Your task to perform on an android device: toggle location history Image 0: 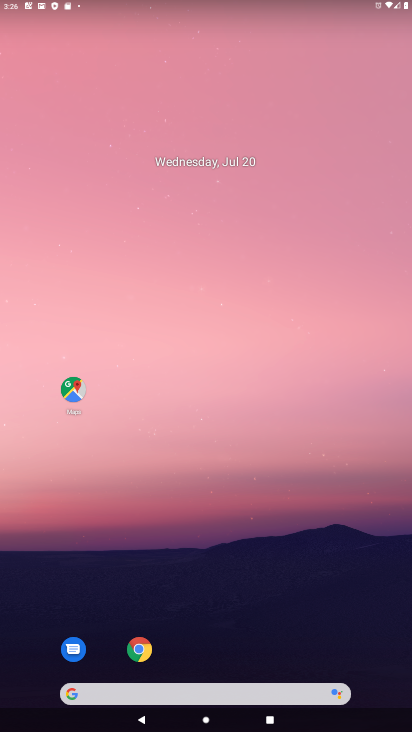
Step 0: drag from (212, 688) to (378, 87)
Your task to perform on an android device: toggle location history Image 1: 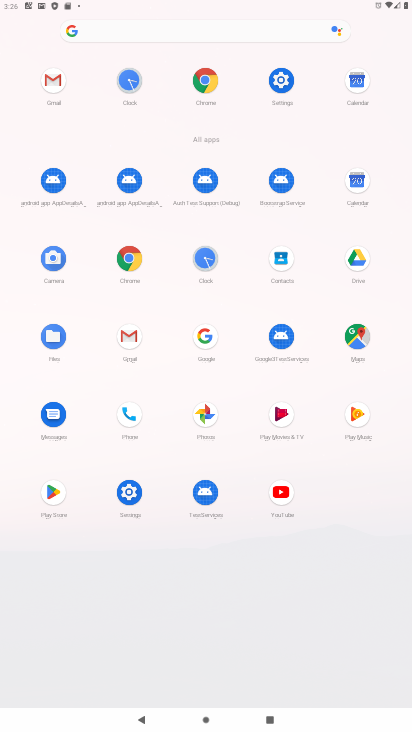
Step 1: click (129, 492)
Your task to perform on an android device: toggle location history Image 2: 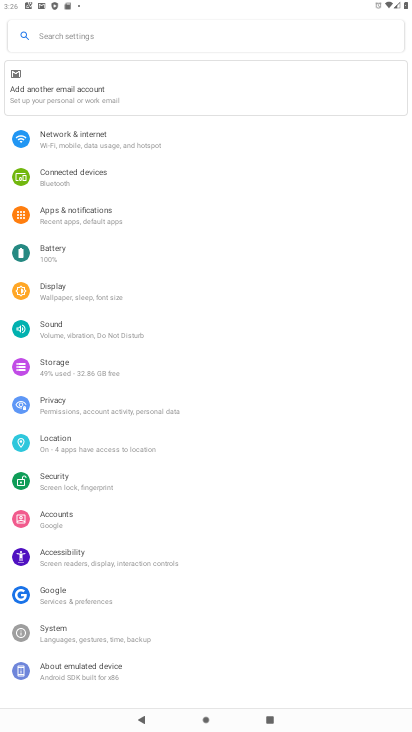
Step 2: click (101, 448)
Your task to perform on an android device: toggle location history Image 3: 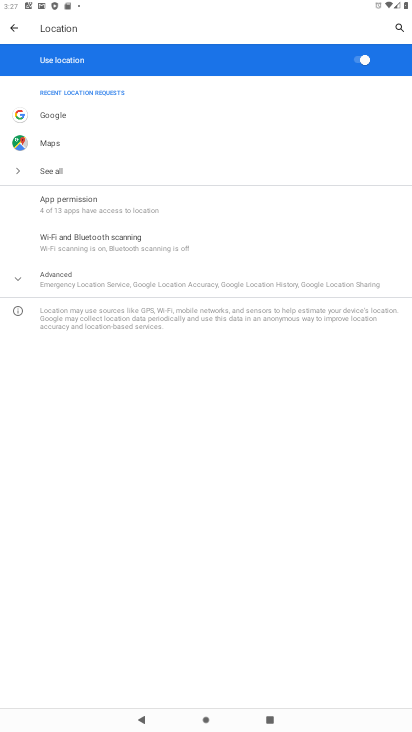
Step 3: click (139, 282)
Your task to perform on an android device: toggle location history Image 4: 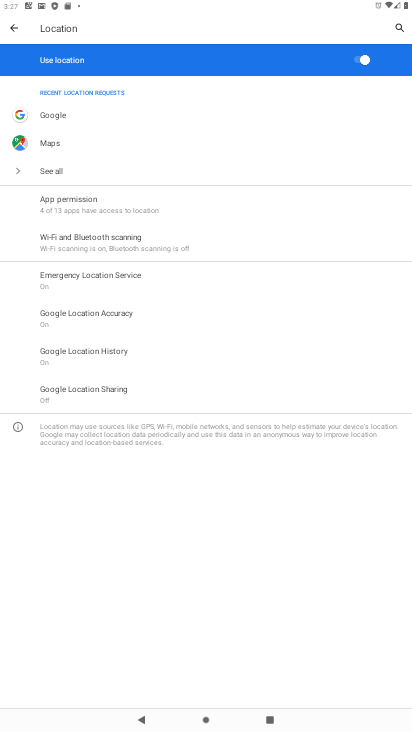
Step 4: click (121, 349)
Your task to perform on an android device: toggle location history Image 5: 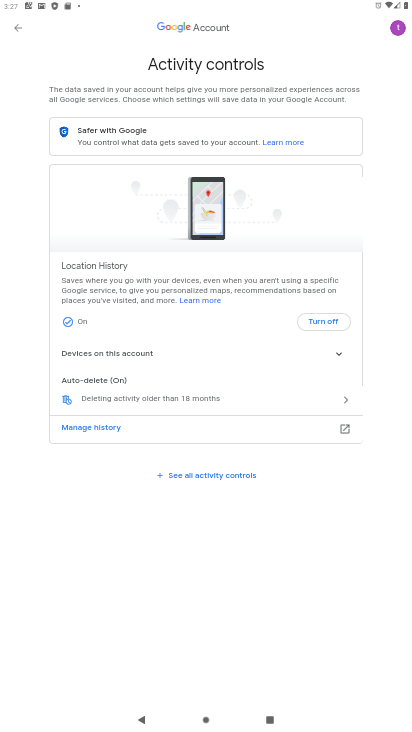
Step 5: click (324, 322)
Your task to perform on an android device: toggle location history Image 6: 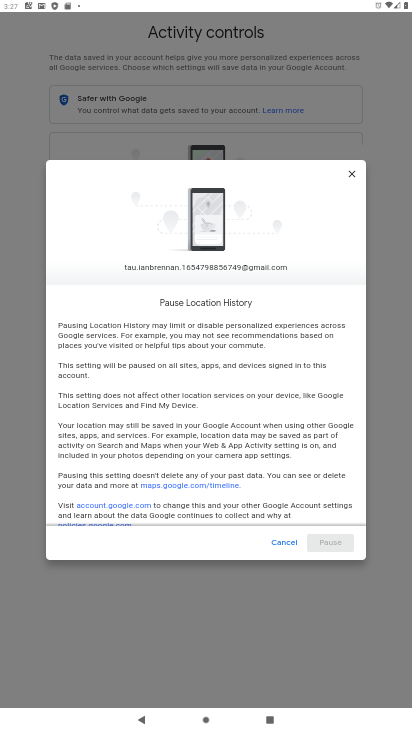
Step 6: drag from (171, 456) to (270, 313)
Your task to perform on an android device: toggle location history Image 7: 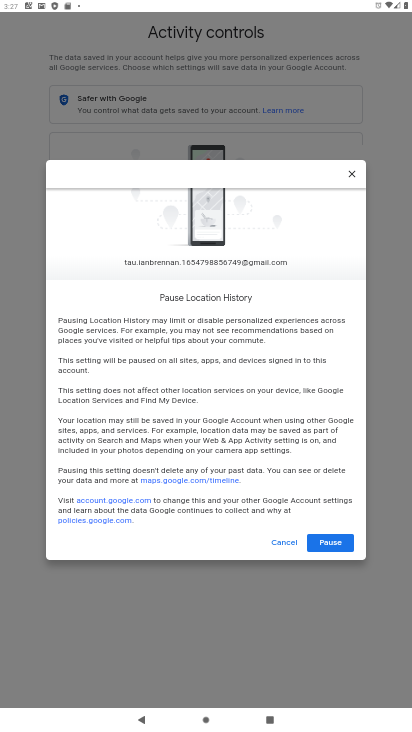
Step 7: click (324, 542)
Your task to perform on an android device: toggle location history Image 8: 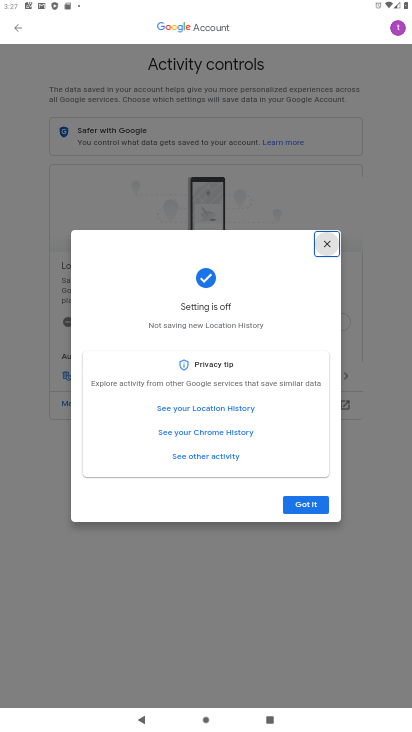
Step 8: click (320, 508)
Your task to perform on an android device: toggle location history Image 9: 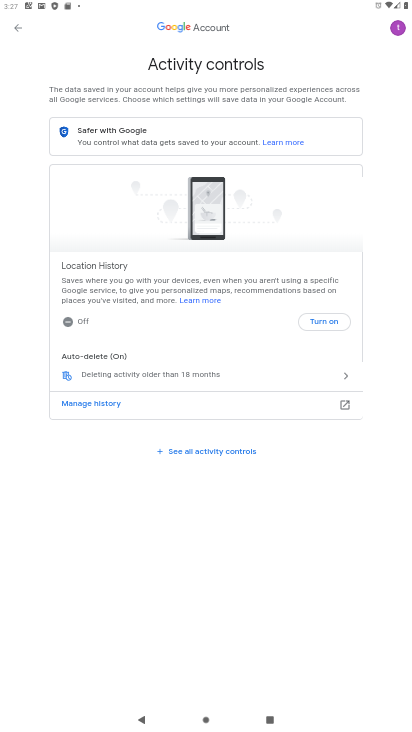
Step 9: task complete